Your task to perform on an android device: turn on sleep mode Image 0: 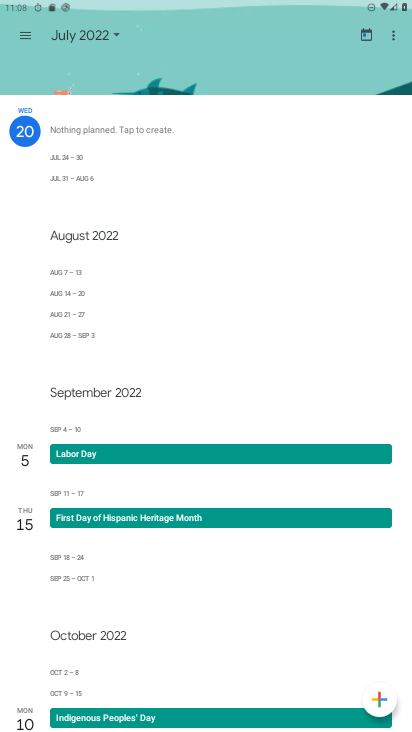
Step 0: press home button
Your task to perform on an android device: turn on sleep mode Image 1: 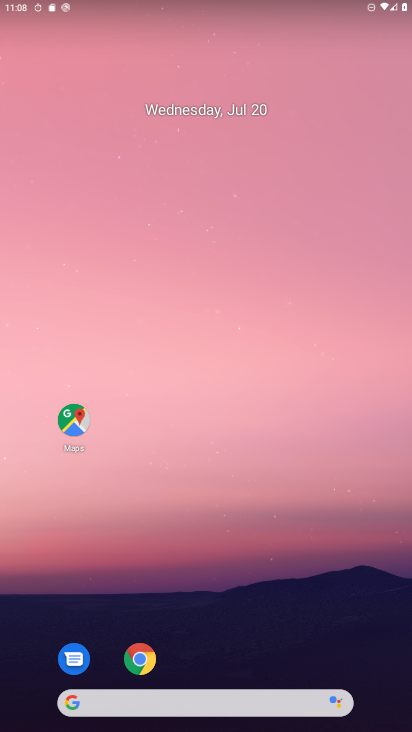
Step 1: drag from (309, 578) to (229, 138)
Your task to perform on an android device: turn on sleep mode Image 2: 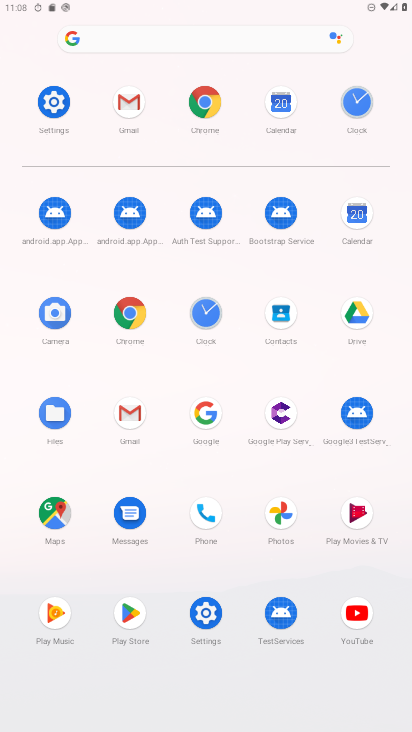
Step 2: click (51, 97)
Your task to perform on an android device: turn on sleep mode Image 3: 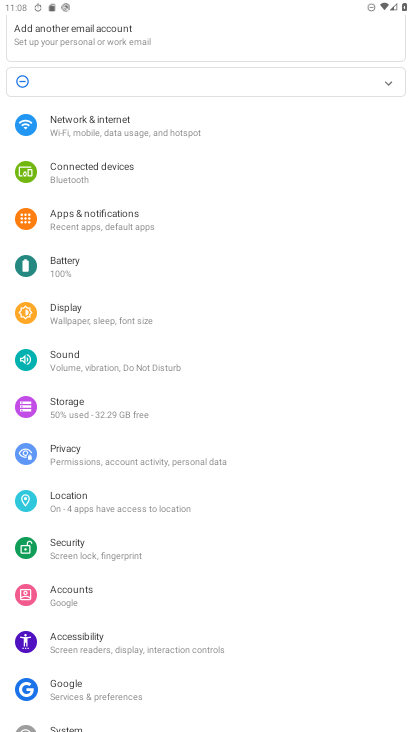
Step 3: click (76, 312)
Your task to perform on an android device: turn on sleep mode Image 4: 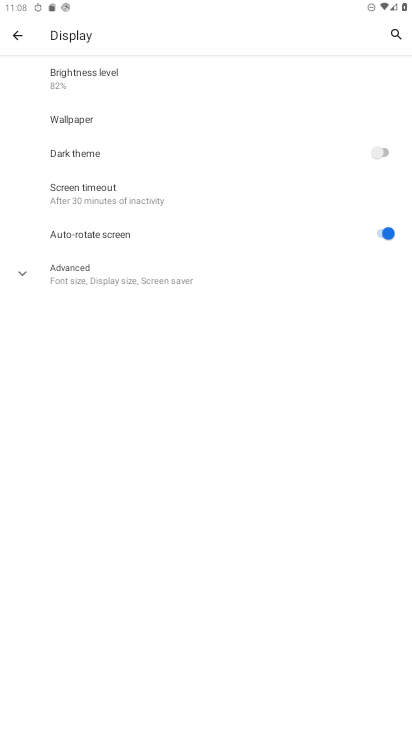
Step 4: click (91, 189)
Your task to perform on an android device: turn on sleep mode Image 5: 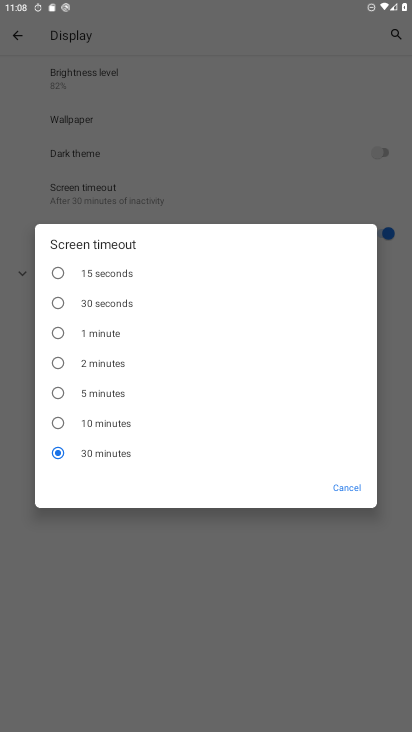
Step 5: task complete